Your task to perform on an android device: Open the web browser Image 0: 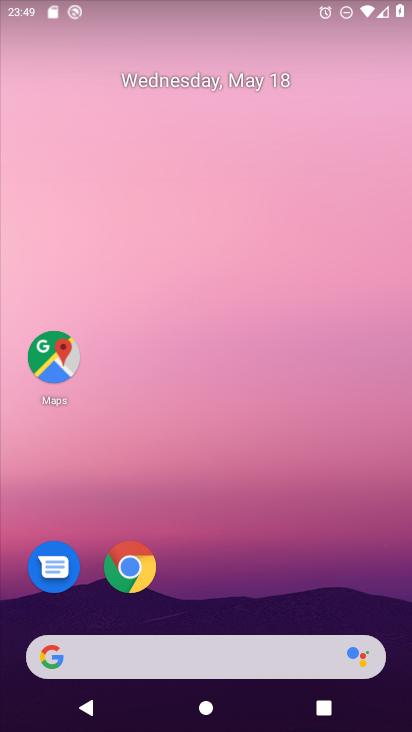
Step 0: drag from (269, 660) to (281, 315)
Your task to perform on an android device: Open the web browser Image 1: 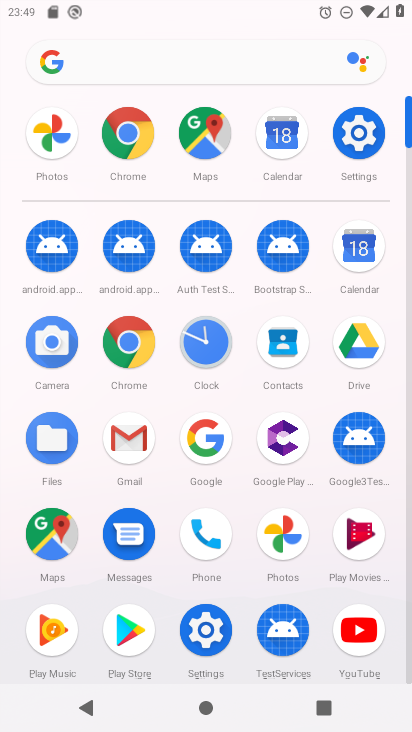
Step 1: click (142, 148)
Your task to perform on an android device: Open the web browser Image 2: 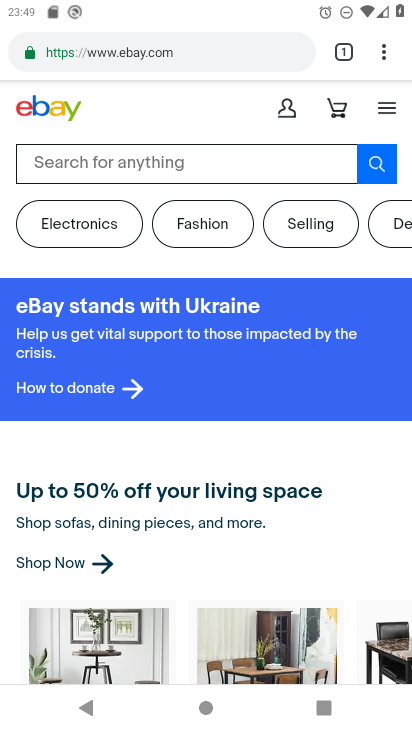
Step 2: click (91, 60)
Your task to perform on an android device: Open the web browser Image 3: 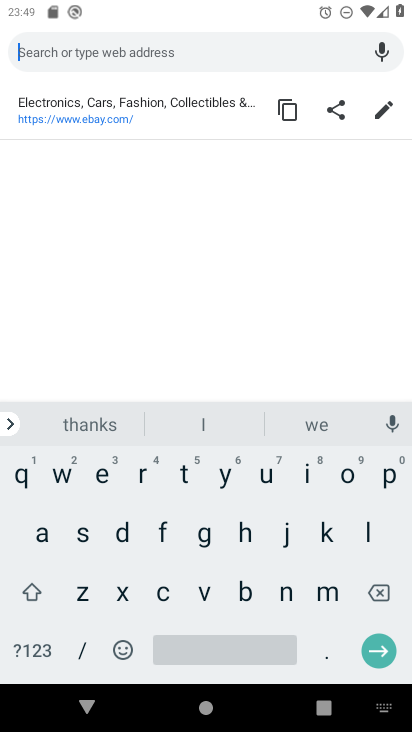
Step 3: task complete